Your task to perform on an android device: add a contact Image 0: 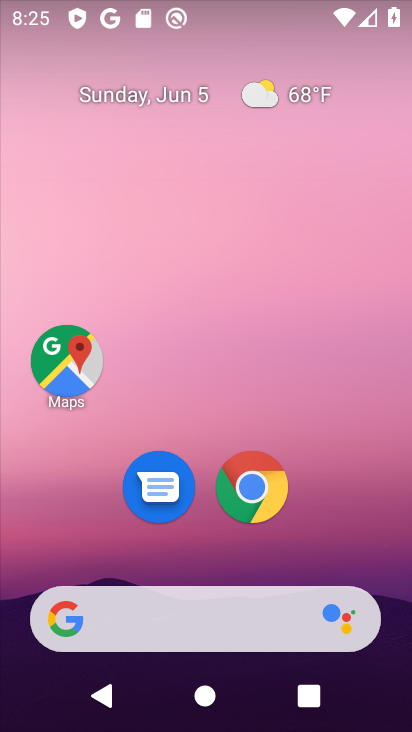
Step 0: drag from (254, 574) to (333, 151)
Your task to perform on an android device: add a contact Image 1: 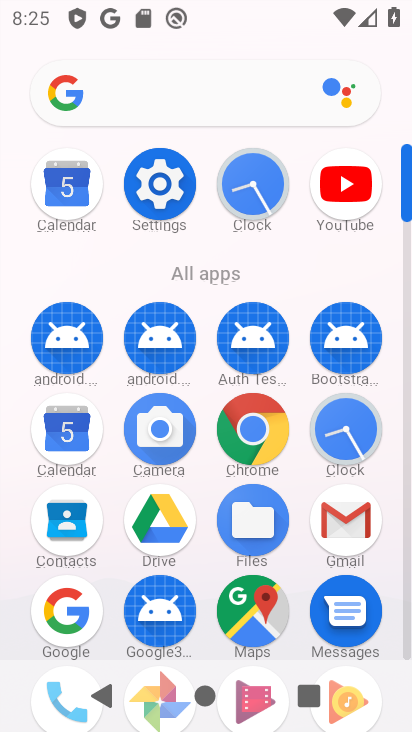
Step 1: click (88, 523)
Your task to perform on an android device: add a contact Image 2: 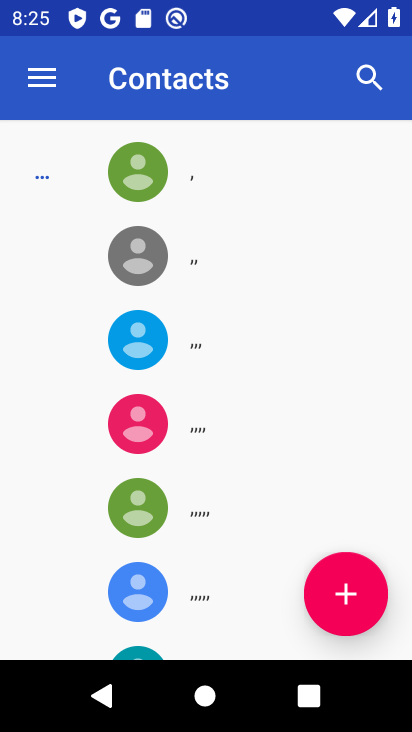
Step 2: click (343, 593)
Your task to perform on an android device: add a contact Image 3: 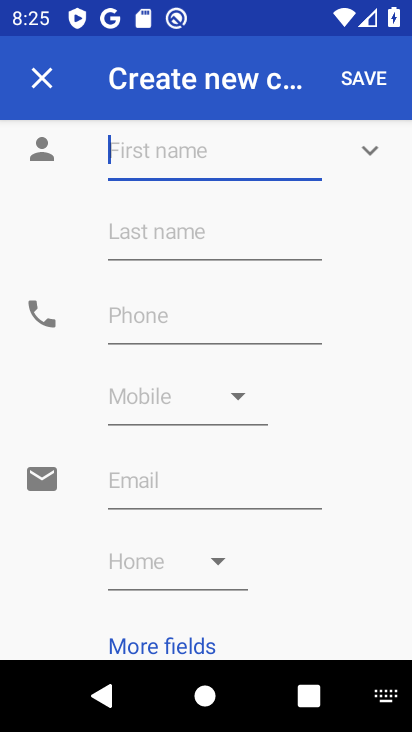
Step 3: click (184, 158)
Your task to perform on an android device: add a contact Image 4: 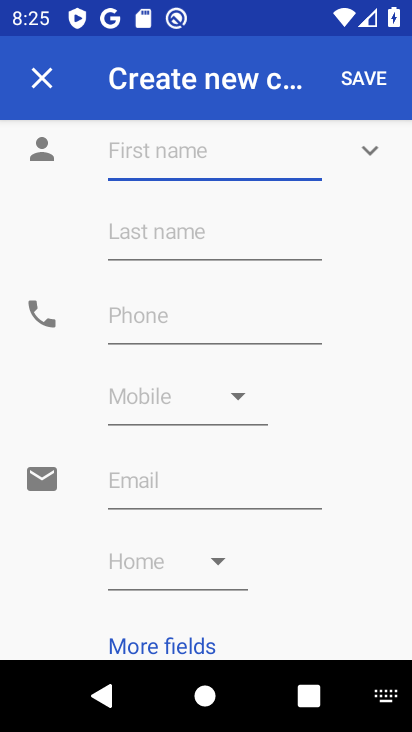
Step 4: type "hvhv"
Your task to perform on an android device: add a contact Image 5: 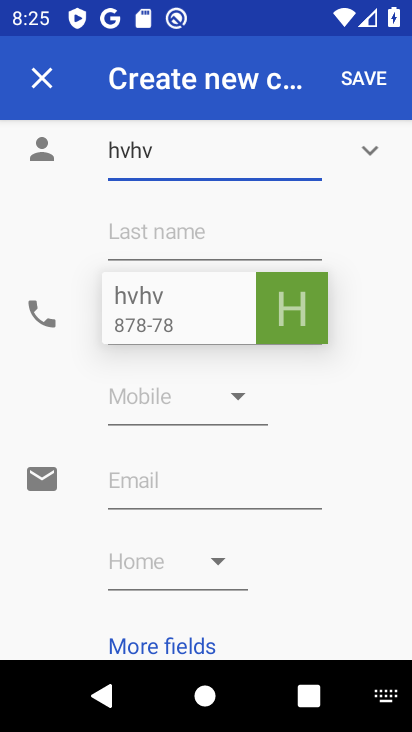
Step 5: click (140, 314)
Your task to perform on an android device: add a contact Image 6: 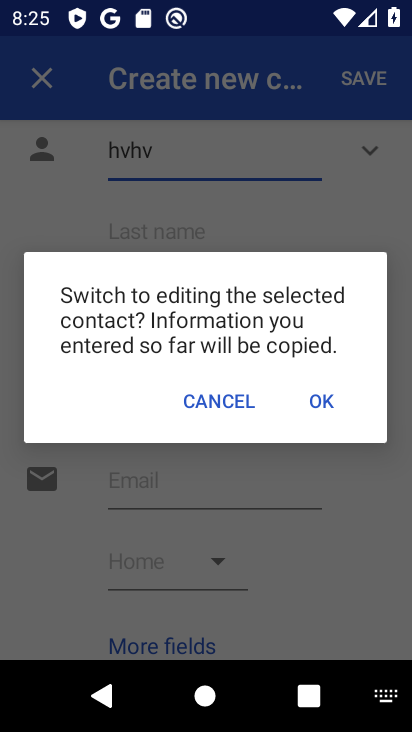
Step 6: click (310, 415)
Your task to perform on an android device: add a contact Image 7: 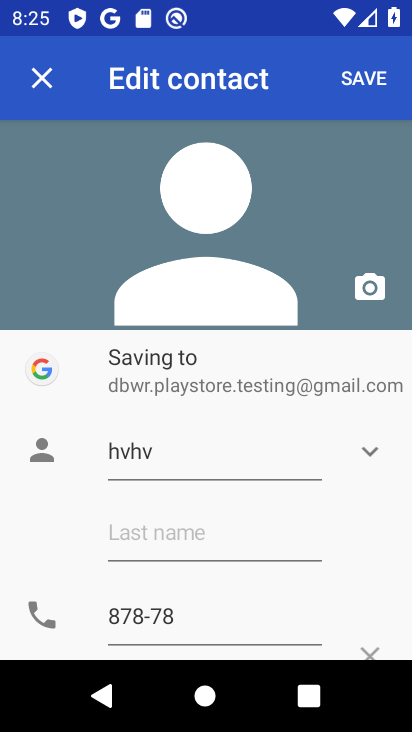
Step 7: click (361, 52)
Your task to perform on an android device: add a contact Image 8: 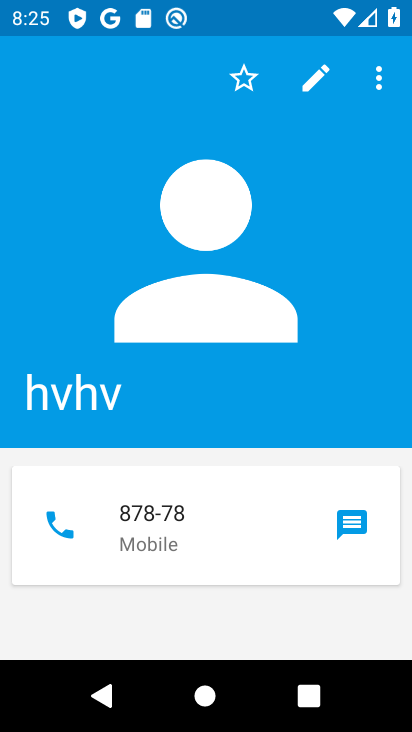
Step 8: task complete